Your task to perform on an android device: Open my contact list Image 0: 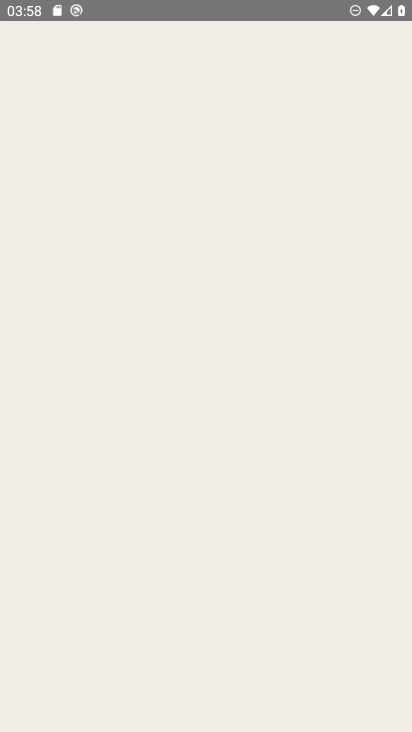
Step 0: click (267, 617)
Your task to perform on an android device: Open my contact list Image 1: 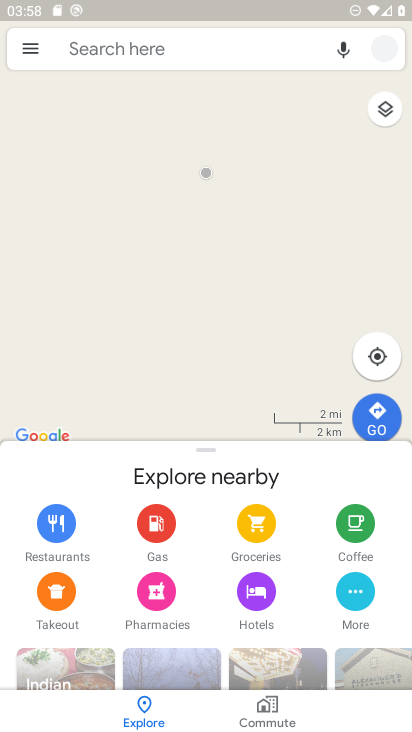
Step 1: press home button
Your task to perform on an android device: Open my contact list Image 2: 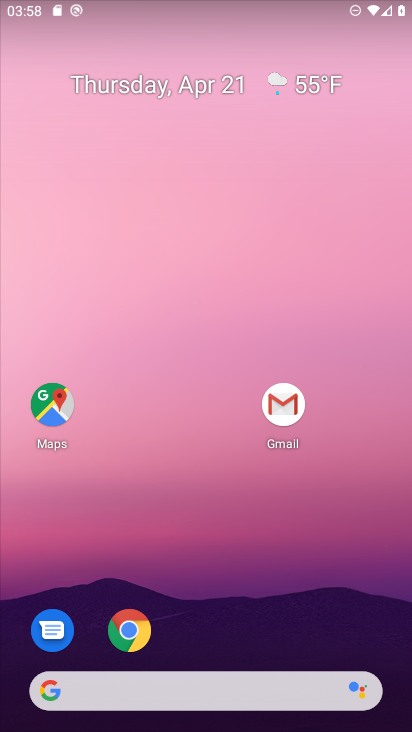
Step 2: drag from (223, 616) to (232, 37)
Your task to perform on an android device: Open my contact list Image 3: 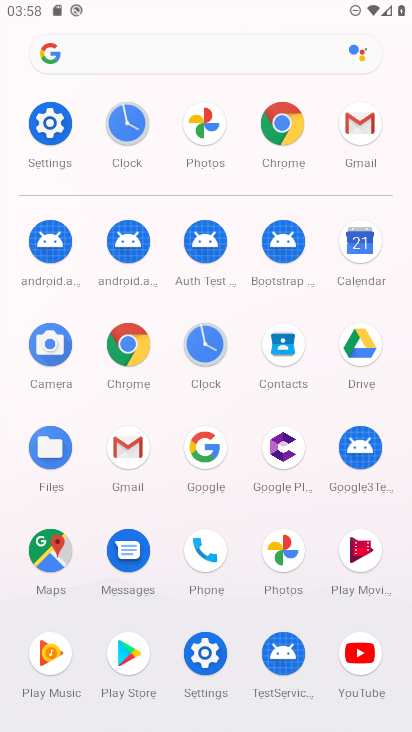
Step 3: drag from (278, 360) to (237, 314)
Your task to perform on an android device: Open my contact list Image 4: 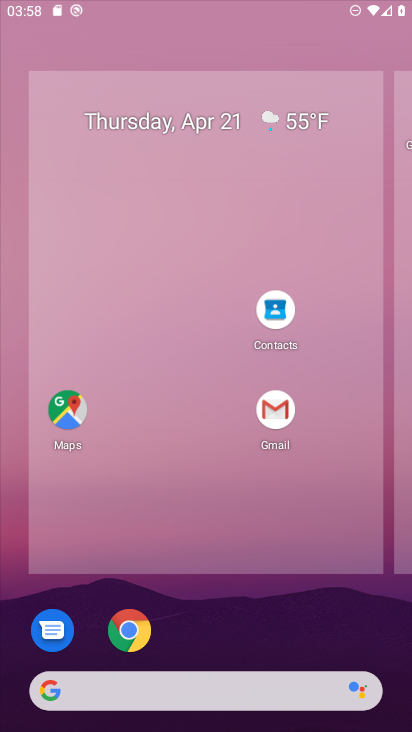
Step 4: click (237, 314)
Your task to perform on an android device: Open my contact list Image 5: 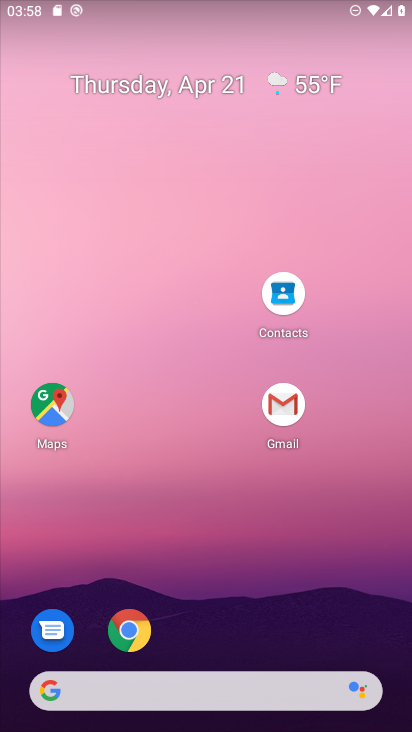
Step 5: click (284, 315)
Your task to perform on an android device: Open my contact list Image 6: 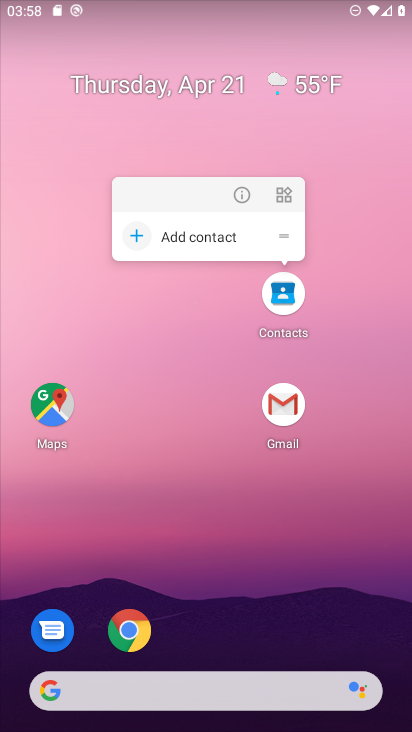
Step 6: click (284, 315)
Your task to perform on an android device: Open my contact list Image 7: 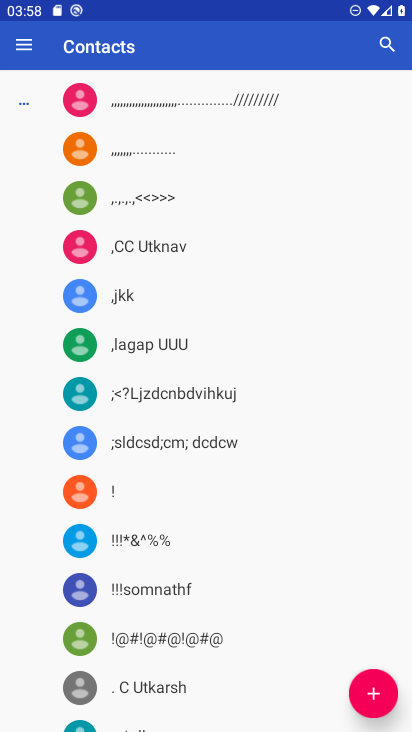
Step 7: task complete